Your task to perform on an android device: Open the stopwatch Image 0: 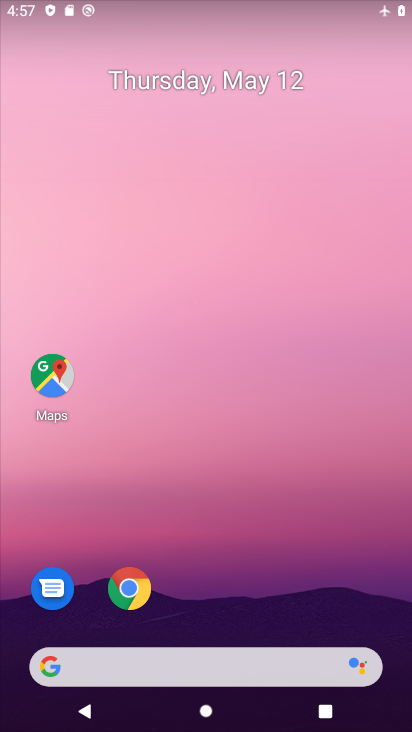
Step 0: drag from (231, 598) to (323, 3)
Your task to perform on an android device: Open the stopwatch Image 1: 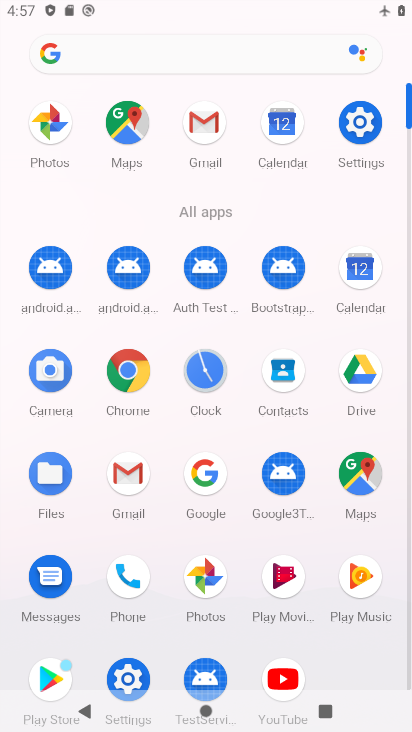
Step 1: click (205, 385)
Your task to perform on an android device: Open the stopwatch Image 2: 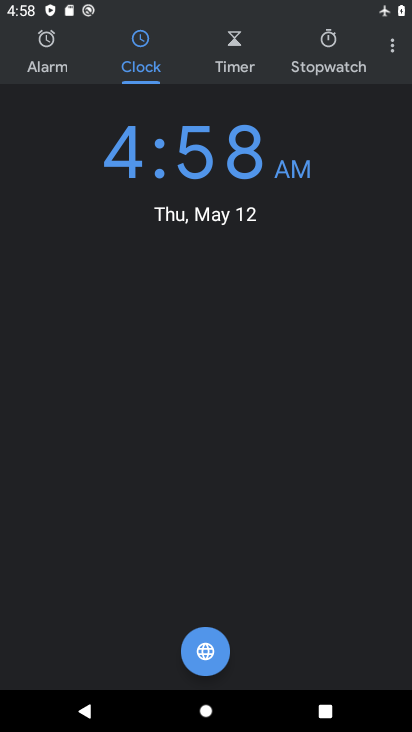
Step 2: click (333, 66)
Your task to perform on an android device: Open the stopwatch Image 3: 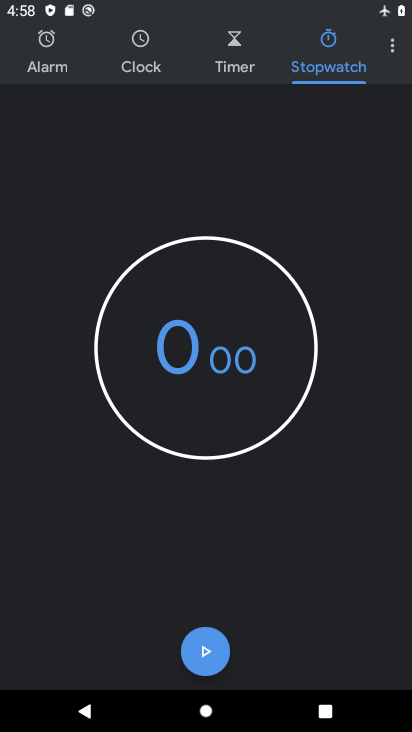
Step 3: click (217, 644)
Your task to perform on an android device: Open the stopwatch Image 4: 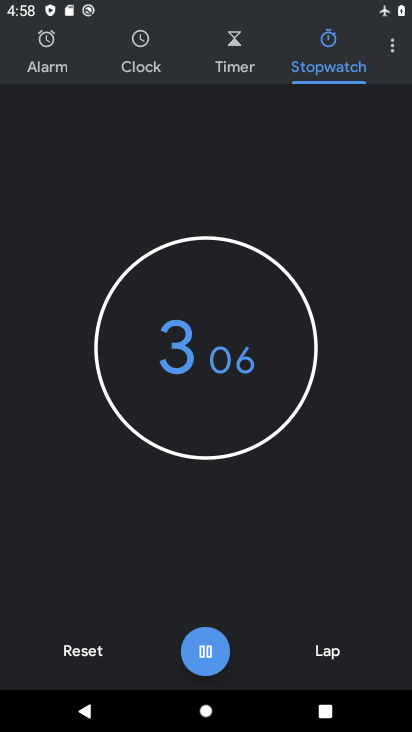
Step 4: task complete